Your task to perform on an android device: add a contact in the contacts app Image 0: 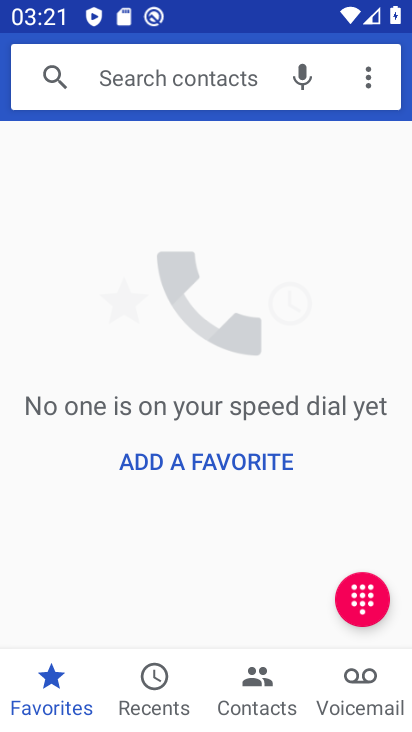
Step 0: press home button
Your task to perform on an android device: add a contact in the contacts app Image 1: 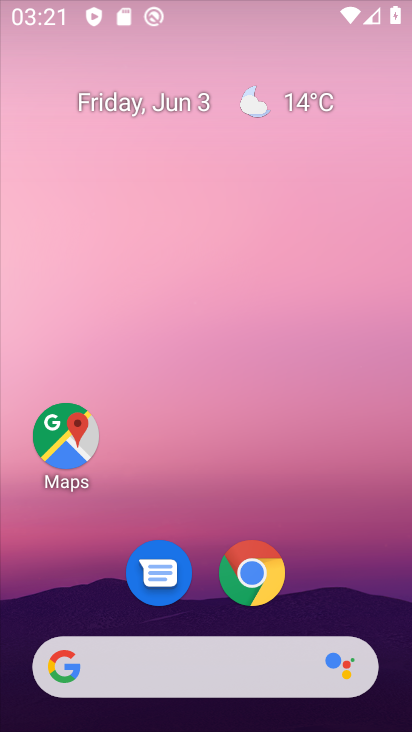
Step 1: drag from (279, 612) to (334, 141)
Your task to perform on an android device: add a contact in the contacts app Image 2: 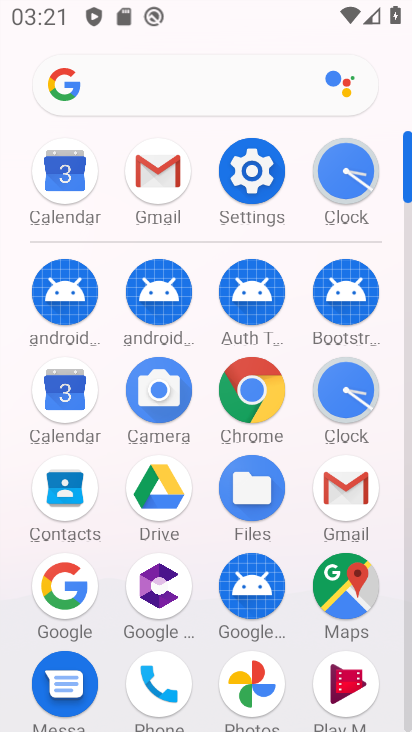
Step 2: click (70, 503)
Your task to perform on an android device: add a contact in the contacts app Image 3: 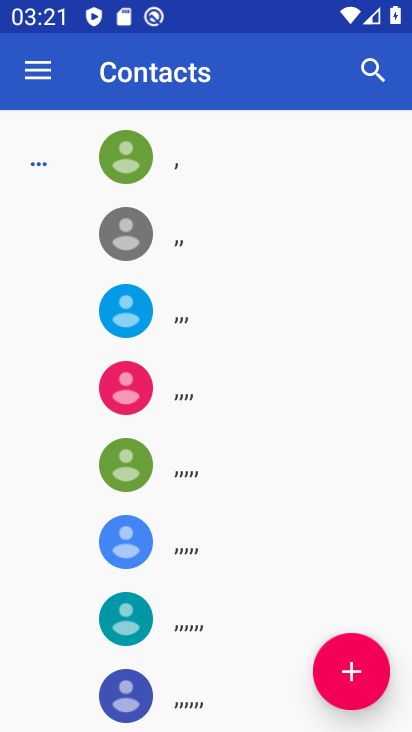
Step 3: click (362, 677)
Your task to perform on an android device: add a contact in the contacts app Image 4: 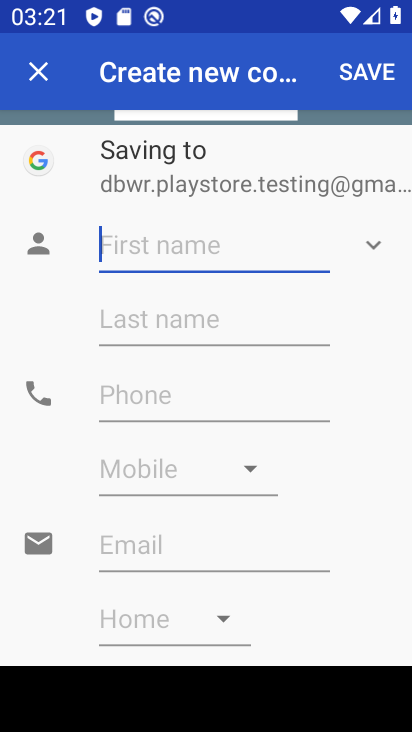
Step 4: type "kjhhxxkjh"
Your task to perform on an android device: add a contact in the contacts app Image 5: 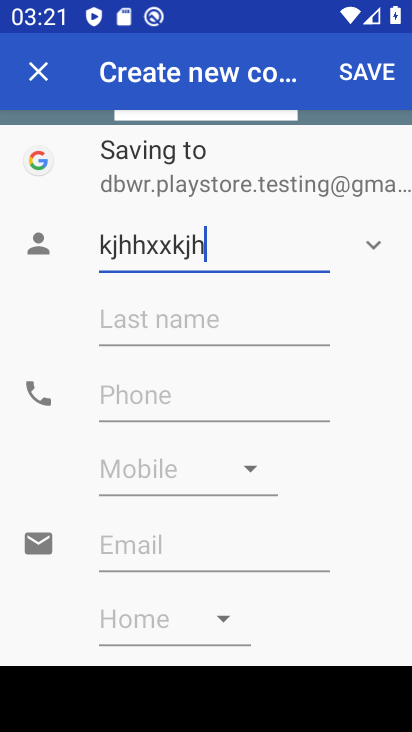
Step 5: click (278, 411)
Your task to perform on an android device: add a contact in the contacts app Image 6: 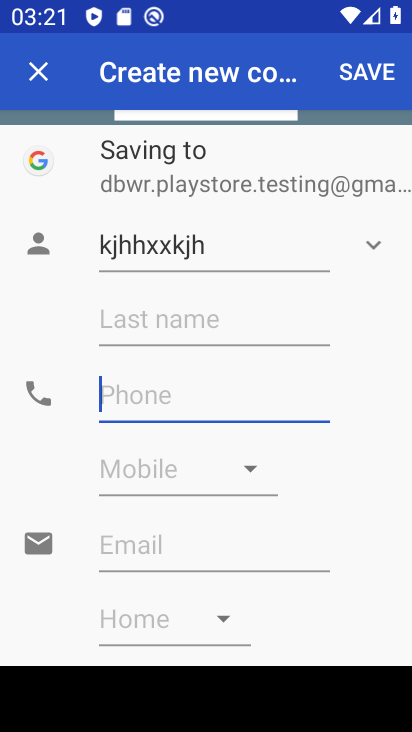
Step 6: type "98766778887"
Your task to perform on an android device: add a contact in the contacts app Image 7: 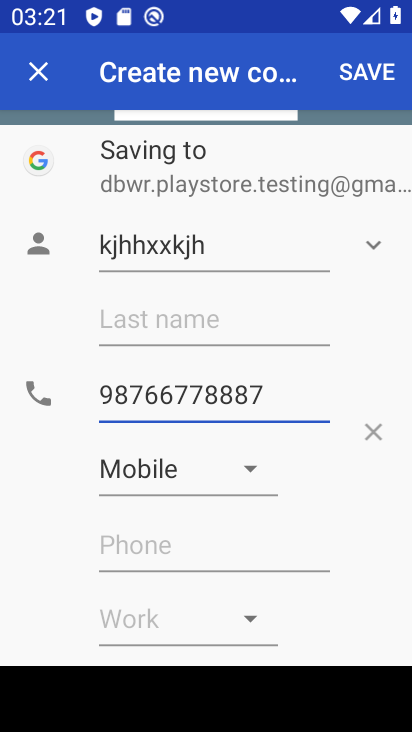
Step 7: click (378, 69)
Your task to perform on an android device: add a contact in the contacts app Image 8: 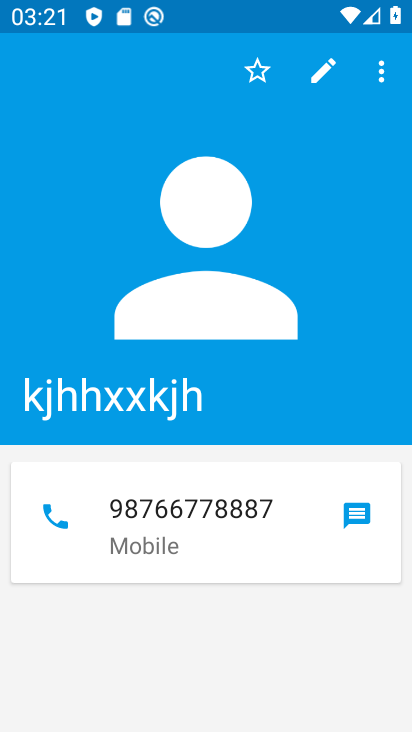
Step 8: task complete